Your task to perform on an android device: open app "Venmo" (install if not already installed) Image 0: 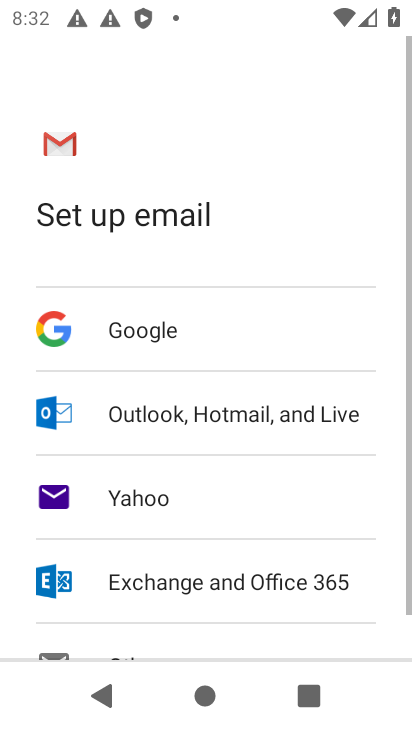
Step 0: press home button
Your task to perform on an android device: open app "Venmo" (install if not already installed) Image 1: 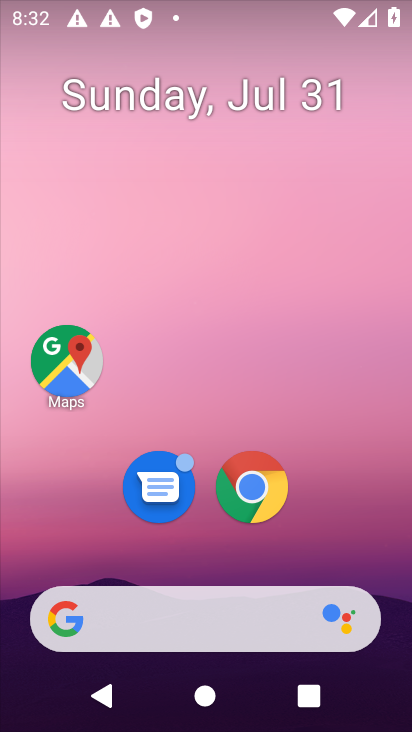
Step 1: drag from (212, 400) to (262, 67)
Your task to perform on an android device: open app "Venmo" (install if not already installed) Image 2: 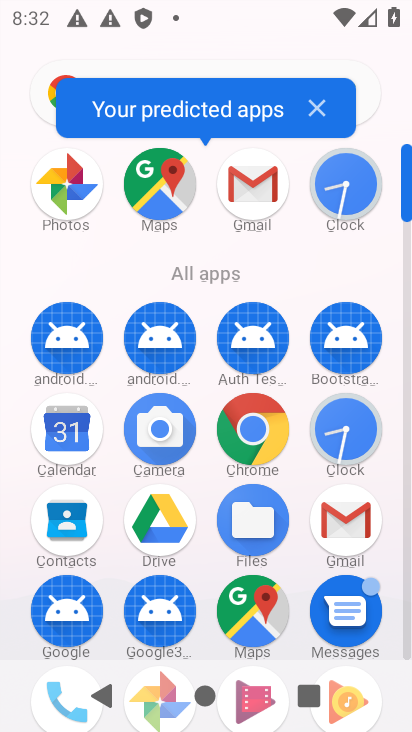
Step 2: drag from (198, 505) to (241, 166)
Your task to perform on an android device: open app "Venmo" (install if not already installed) Image 3: 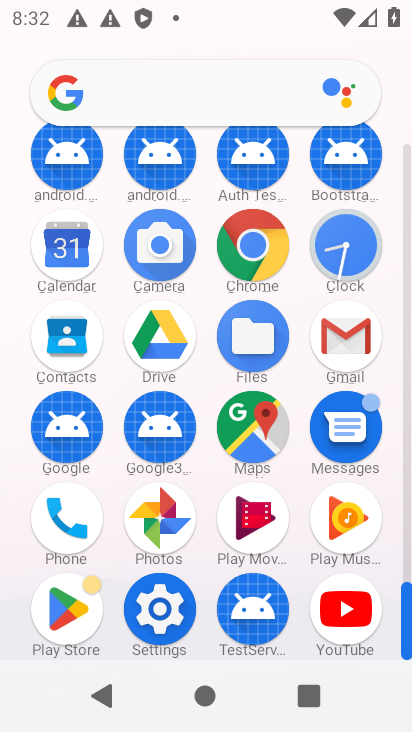
Step 3: click (62, 599)
Your task to perform on an android device: open app "Venmo" (install if not already installed) Image 4: 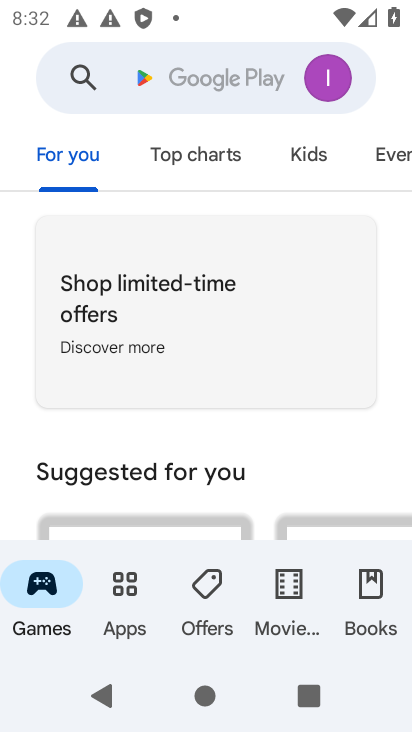
Step 4: click (78, 84)
Your task to perform on an android device: open app "Venmo" (install if not already installed) Image 5: 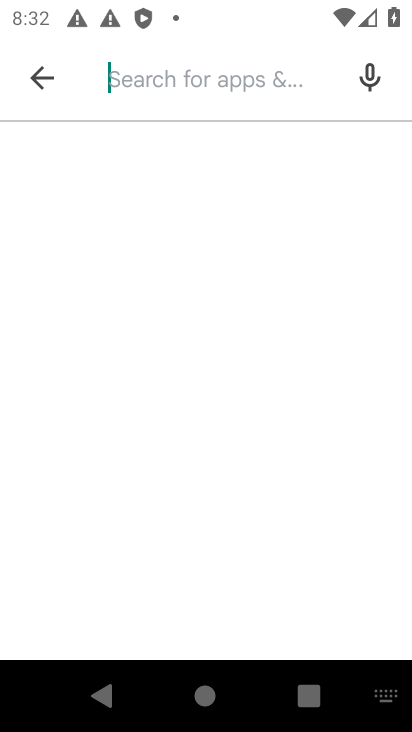
Step 5: type "venmo"
Your task to perform on an android device: open app "Venmo" (install if not already installed) Image 6: 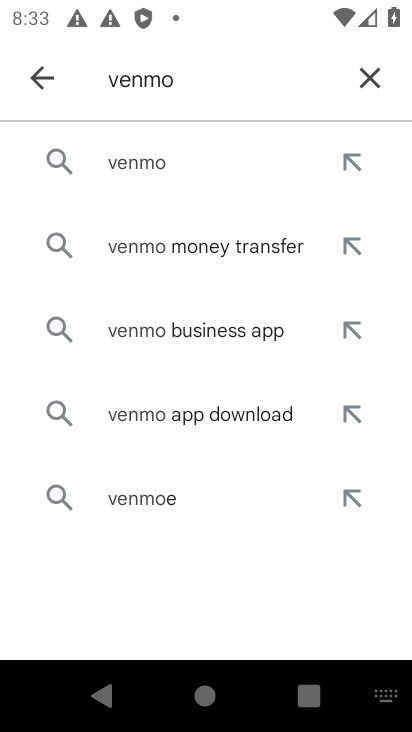
Step 6: click (146, 153)
Your task to perform on an android device: open app "Venmo" (install if not already installed) Image 7: 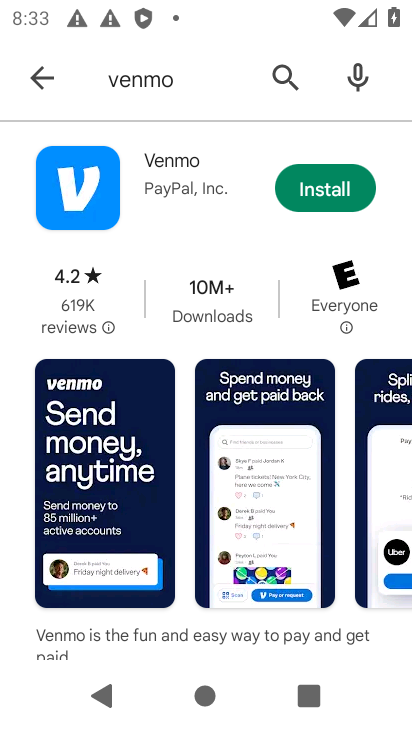
Step 7: click (323, 201)
Your task to perform on an android device: open app "Venmo" (install if not already installed) Image 8: 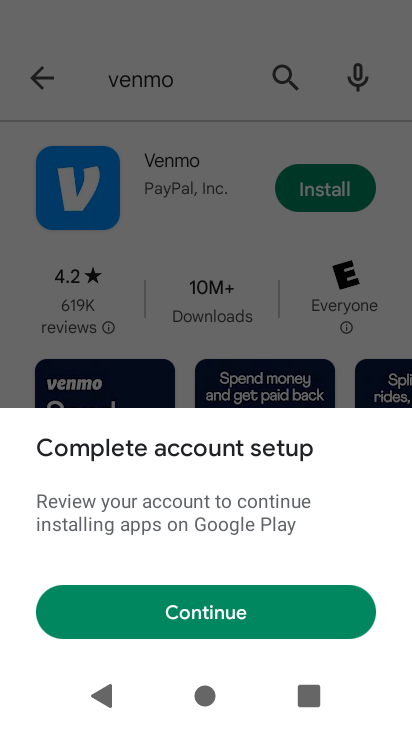
Step 8: click (190, 605)
Your task to perform on an android device: open app "Venmo" (install if not already installed) Image 9: 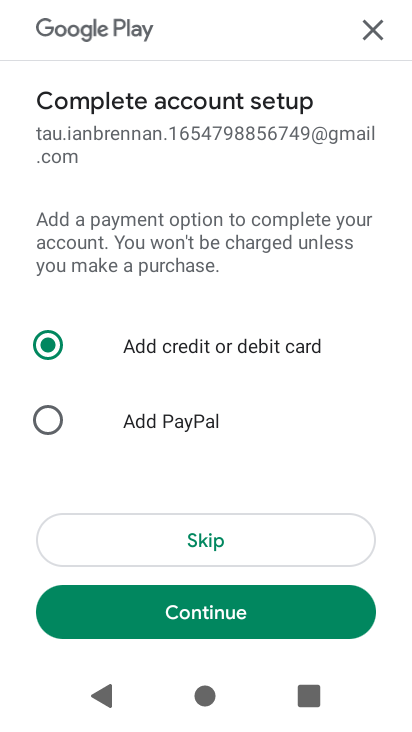
Step 9: click (174, 540)
Your task to perform on an android device: open app "Venmo" (install if not already installed) Image 10: 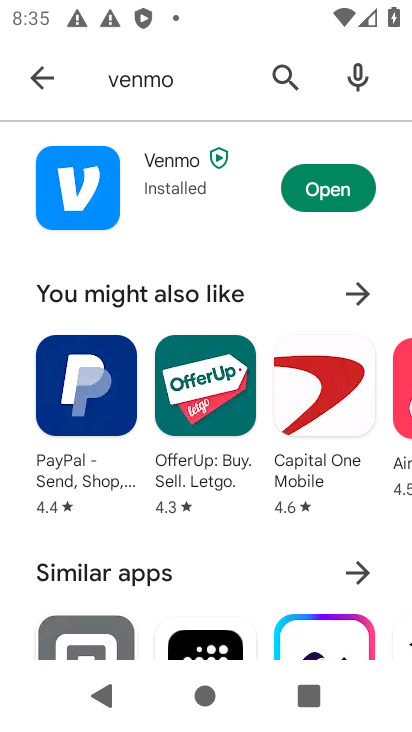
Step 10: click (309, 189)
Your task to perform on an android device: open app "Venmo" (install if not already installed) Image 11: 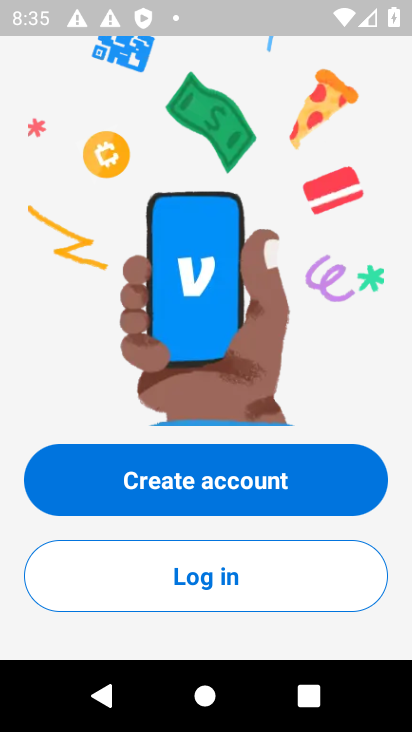
Step 11: task complete